Your task to perform on an android device: turn on airplane mode Image 0: 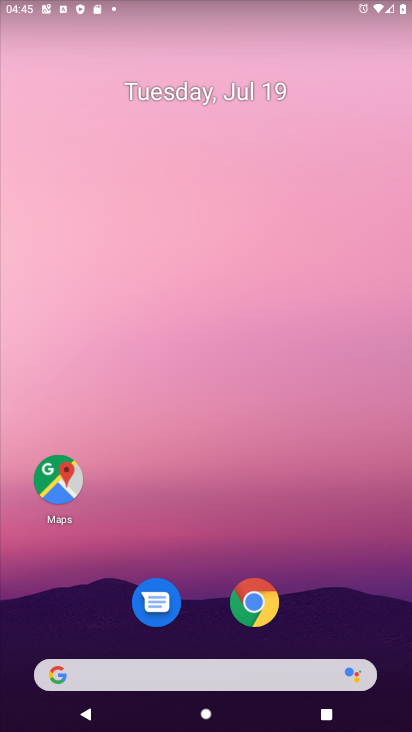
Step 0: drag from (207, 6) to (262, 441)
Your task to perform on an android device: turn on airplane mode Image 1: 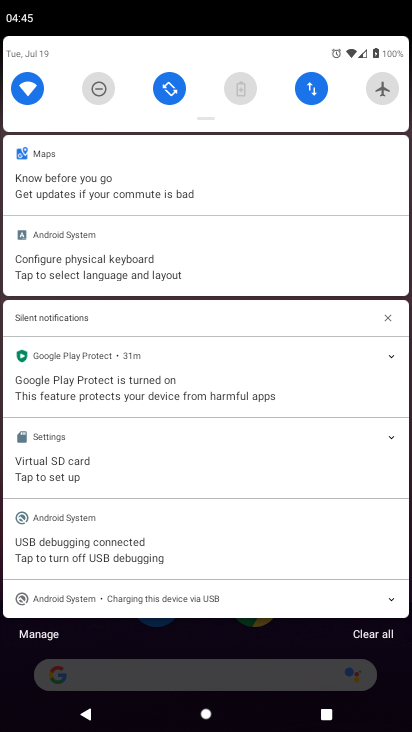
Step 1: click (390, 80)
Your task to perform on an android device: turn on airplane mode Image 2: 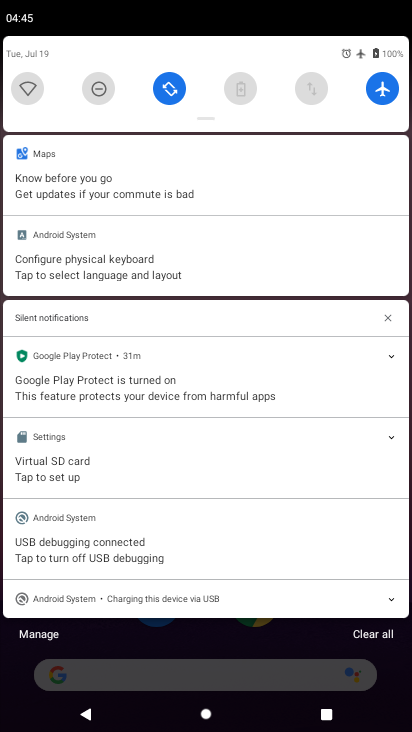
Step 2: task complete